Your task to perform on an android device: Open CNN.com Image 0: 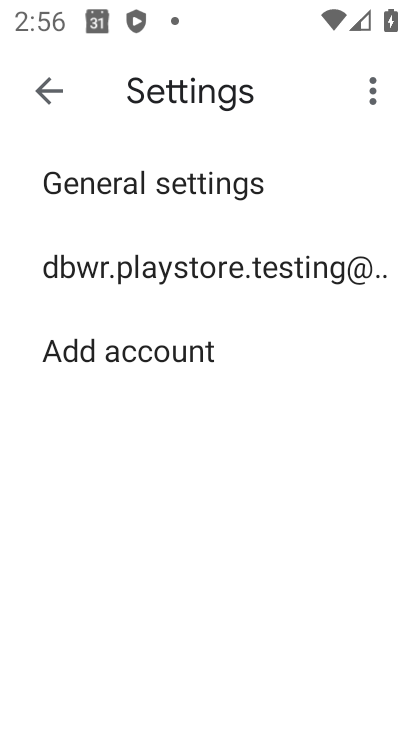
Step 0: press home button
Your task to perform on an android device: Open CNN.com Image 1: 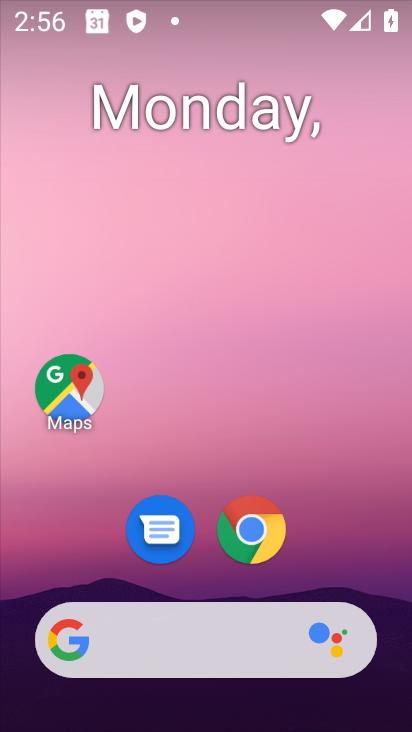
Step 1: click (259, 559)
Your task to perform on an android device: Open CNN.com Image 2: 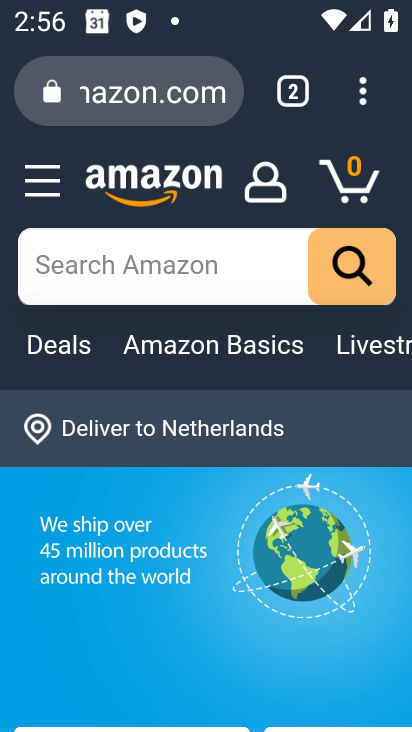
Step 2: click (148, 102)
Your task to perform on an android device: Open CNN.com Image 3: 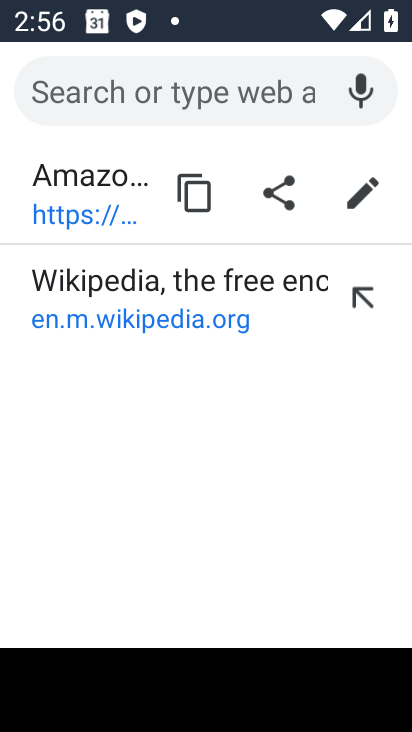
Step 3: type "CNN.com"
Your task to perform on an android device: Open CNN.com Image 4: 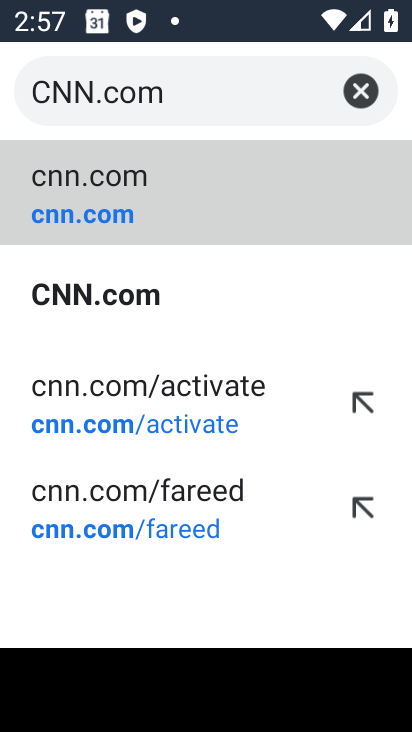
Step 4: type "az"
Your task to perform on an android device: Open CNN.com Image 5: 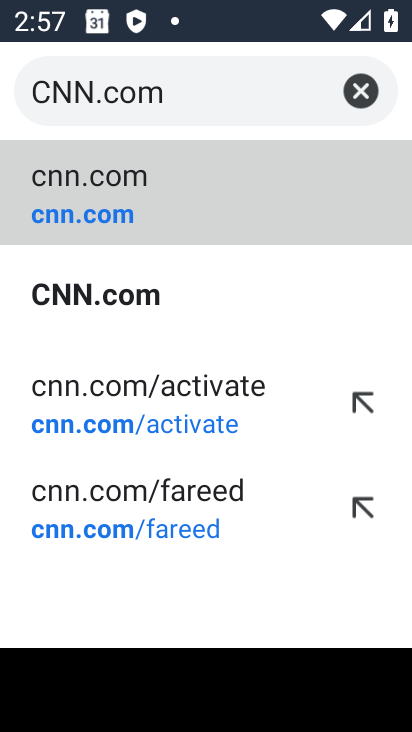
Step 5: click (62, 216)
Your task to perform on an android device: Open CNN.com Image 6: 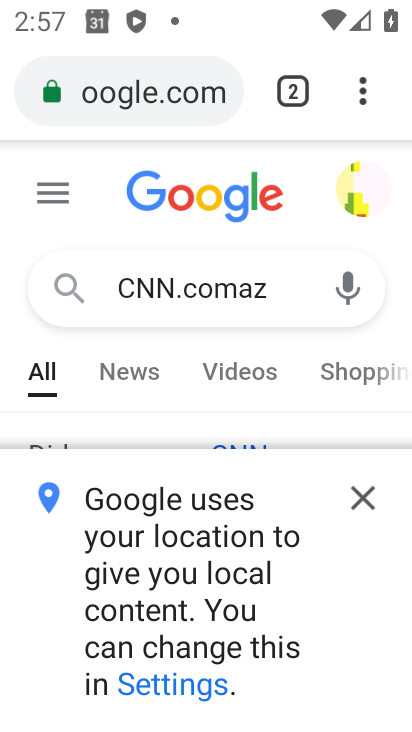
Step 6: click (360, 498)
Your task to perform on an android device: Open CNN.com Image 7: 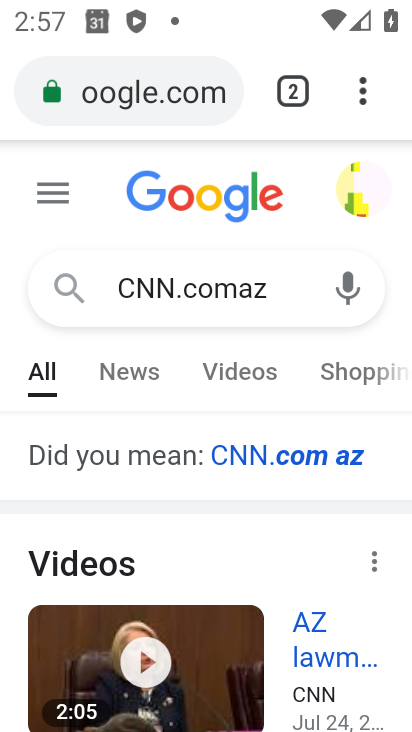
Step 7: task complete